Your task to perform on an android device: allow cookies in the chrome app Image 0: 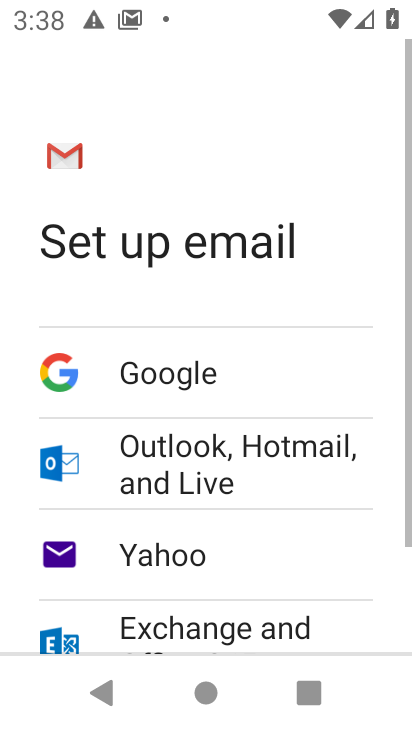
Step 0: task complete